Your task to perform on an android device: Open calendar and show me the second week of next month Image 0: 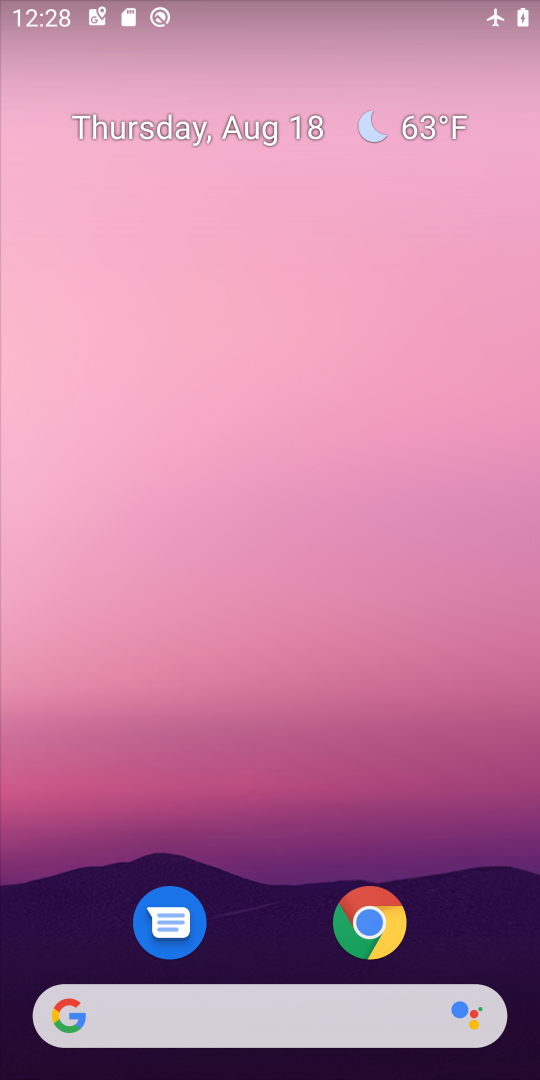
Step 0: press home button
Your task to perform on an android device: Open calendar and show me the second week of next month Image 1: 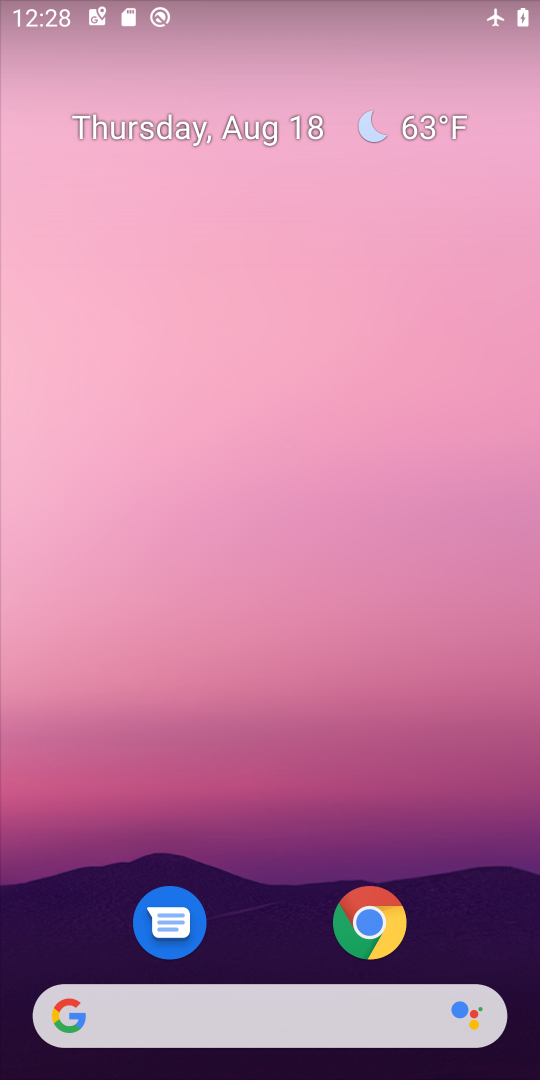
Step 1: drag from (281, 902) to (200, 59)
Your task to perform on an android device: Open calendar and show me the second week of next month Image 2: 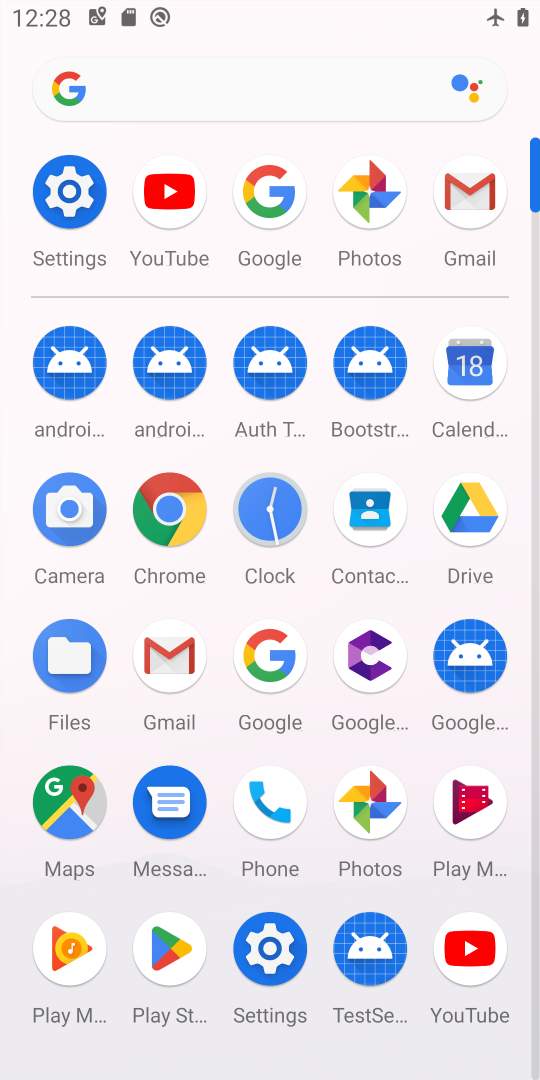
Step 2: click (473, 364)
Your task to perform on an android device: Open calendar and show me the second week of next month Image 3: 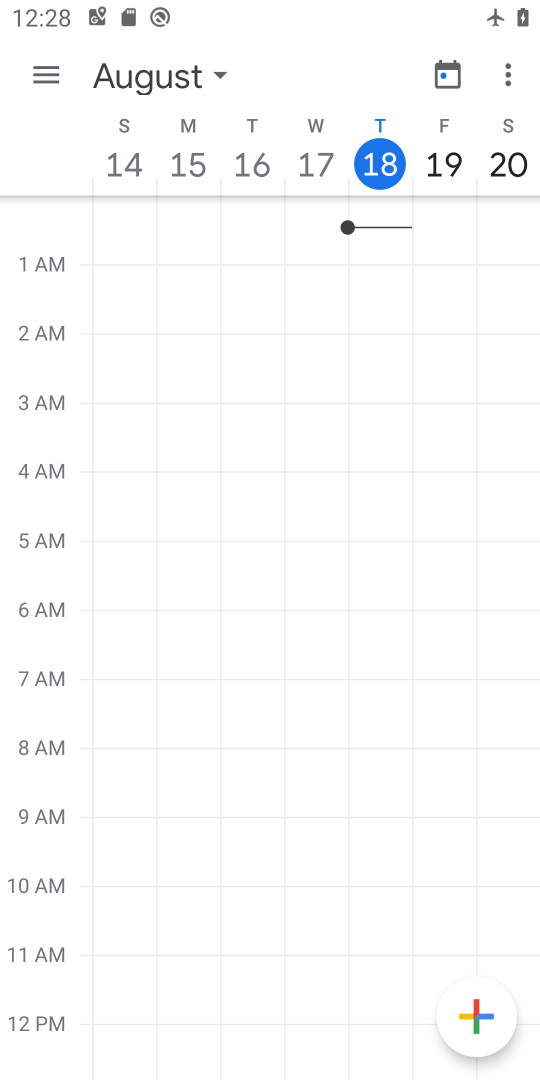
Step 3: click (225, 76)
Your task to perform on an android device: Open calendar and show me the second week of next month Image 4: 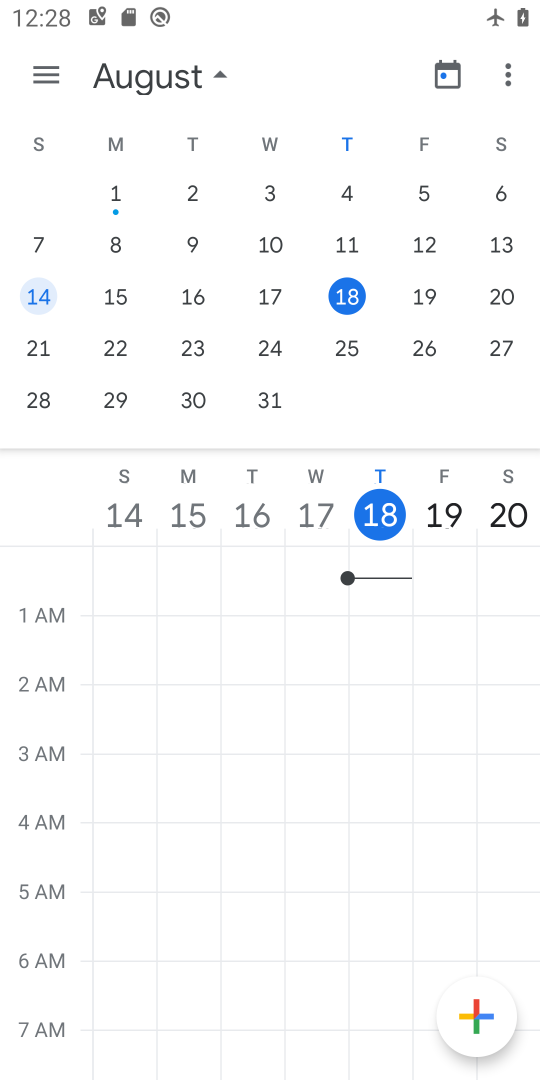
Step 4: drag from (496, 228) to (34, 371)
Your task to perform on an android device: Open calendar and show me the second week of next month Image 5: 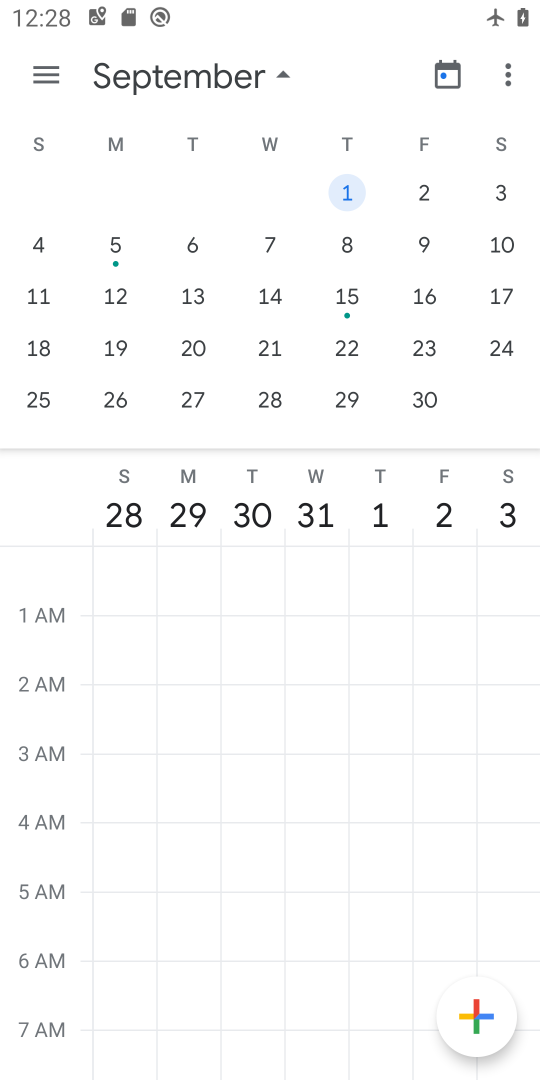
Step 5: click (345, 239)
Your task to perform on an android device: Open calendar and show me the second week of next month Image 6: 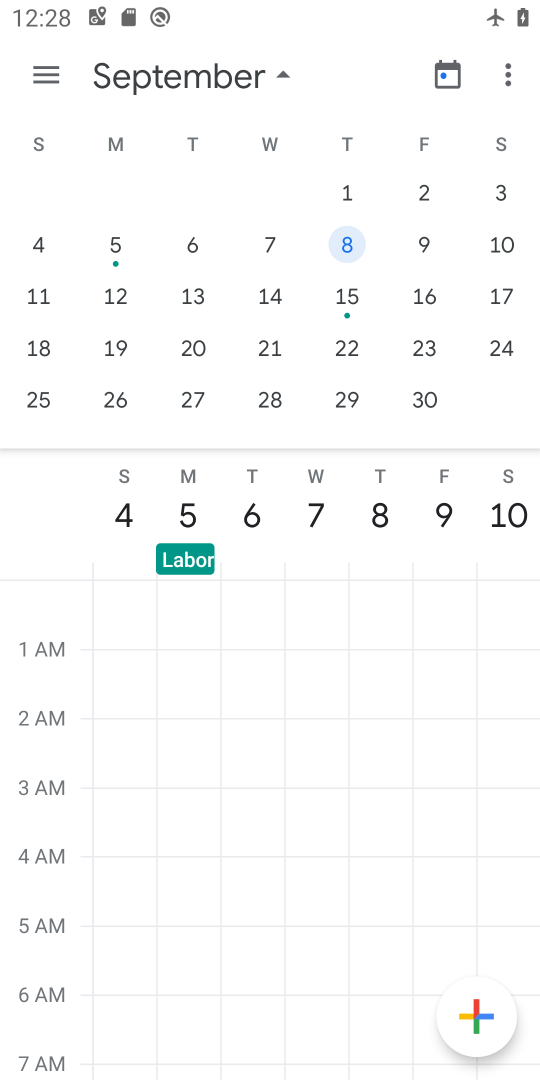
Step 6: task complete